Your task to perform on an android device: check android version Image 0: 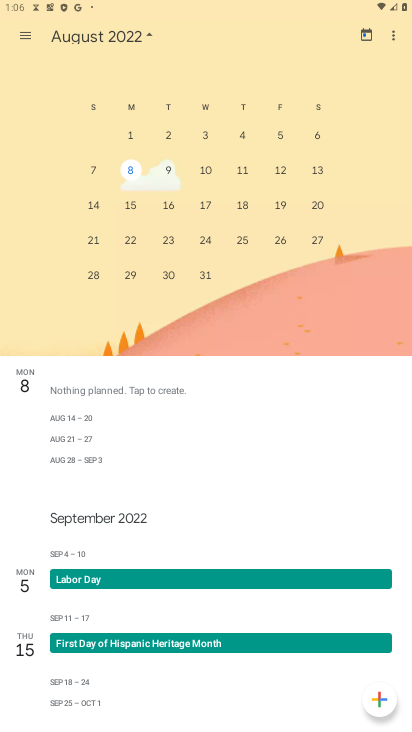
Step 0: press home button
Your task to perform on an android device: check android version Image 1: 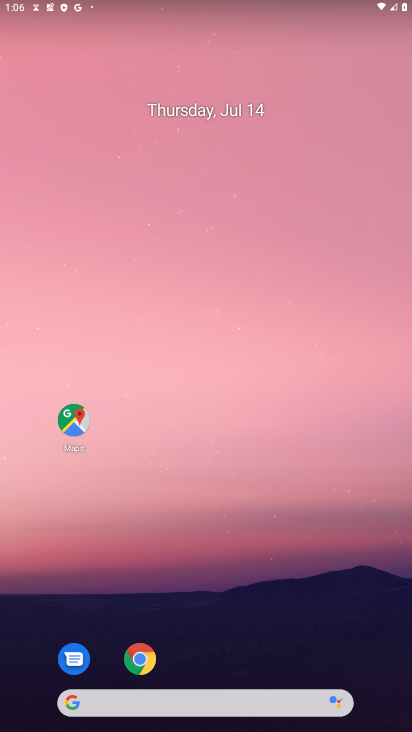
Step 1: drag from (15, 682) to (410, 83)
Your task to perform on an android device: check android version Image 2: 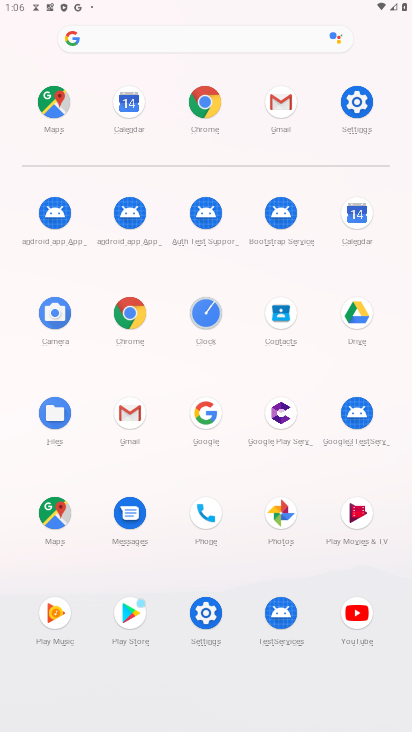
Step 2: click (209, 606)
Your task to perform on an android device: check android version Image 3: 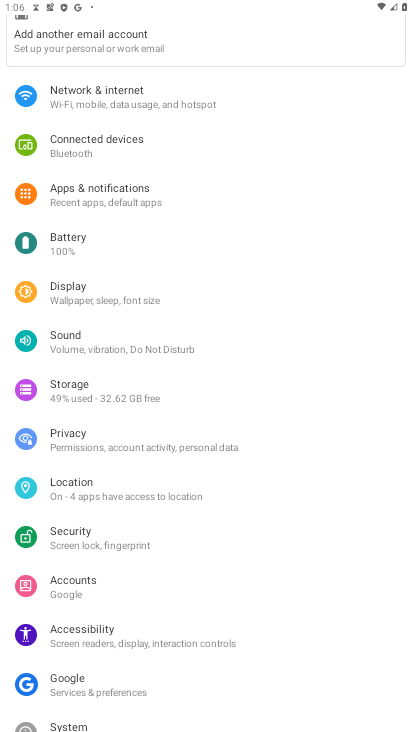
Step 3: drag from (277, 672) to (292, 462)
Your task to perform on an android device: check android version Image 4: 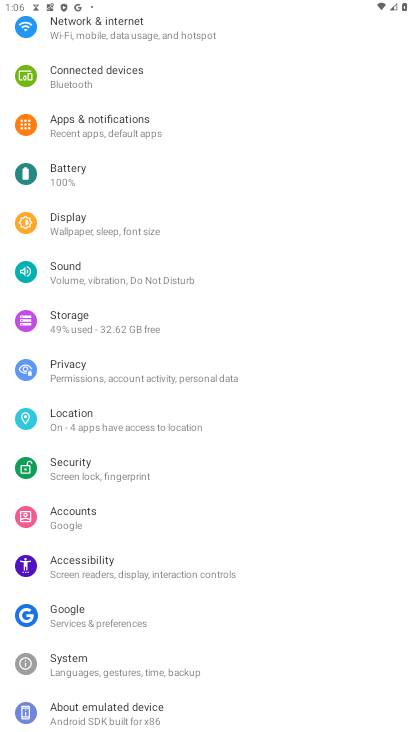
Step 4: click (116, 693)
Your task to perform on an android device: check android version Image 5: 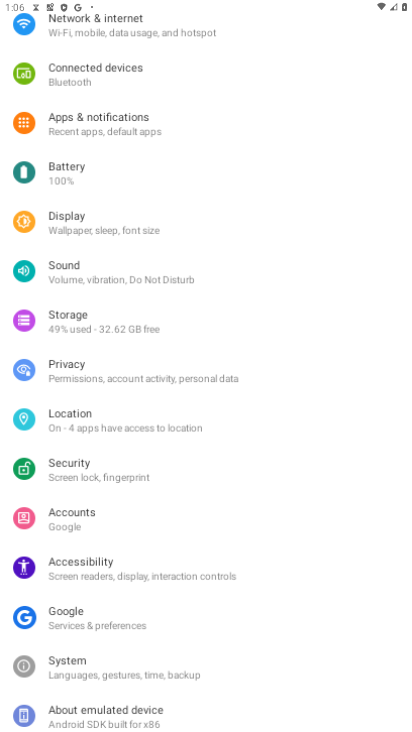
Step 5: click (118, 718)
Your task to perform on an android device: check android version Image 6: 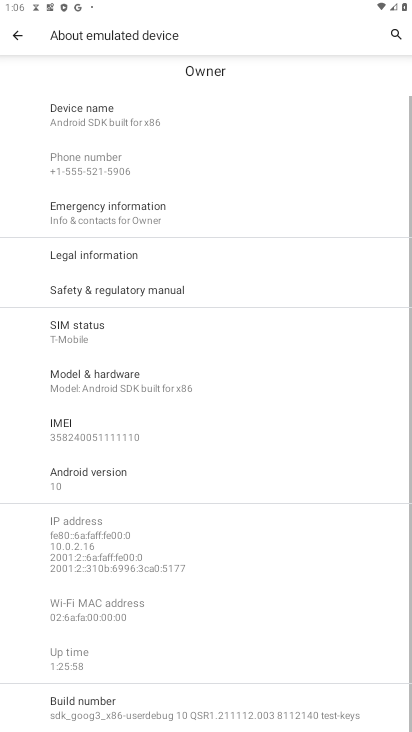
Step 6: click (88, 478)
Your task to perform on an android device: check android version Image 7: 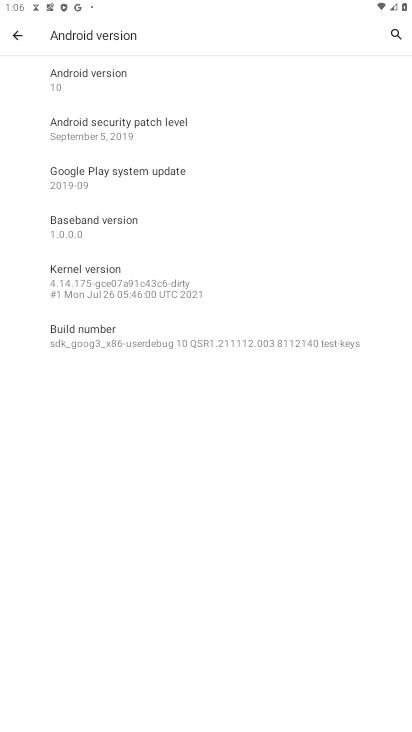
Step 7: task complete